Your task to perform on an android device: change notifications settings Image 0: 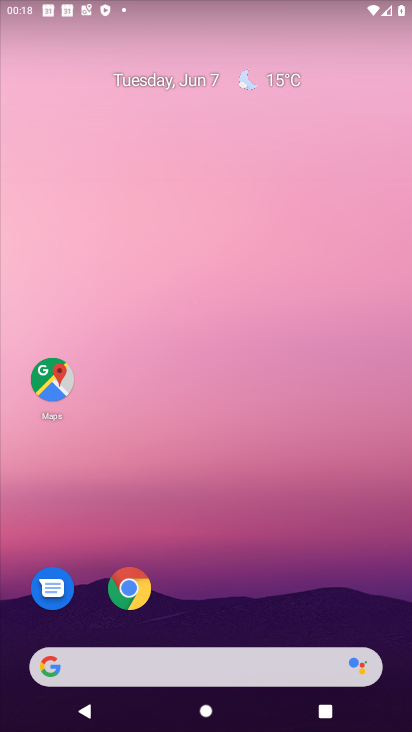
Step 0: drag from (252, 622) to (220, 215)
Your task to perform on an android device: change notifications settings Image 1: 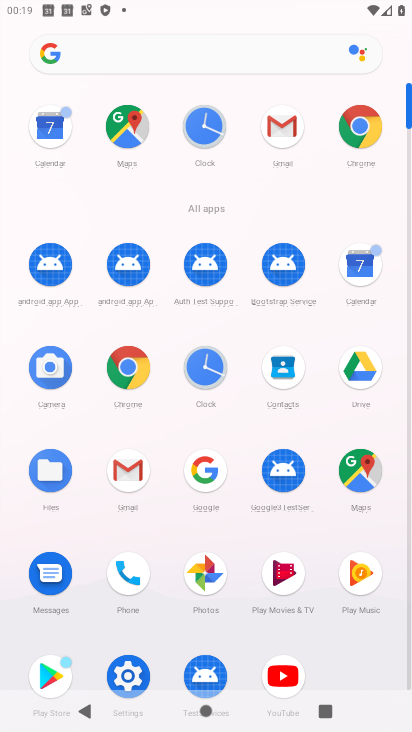
Step 1: click (120, 670)
Your task to perform on an android device: change notifications settings Image 2: 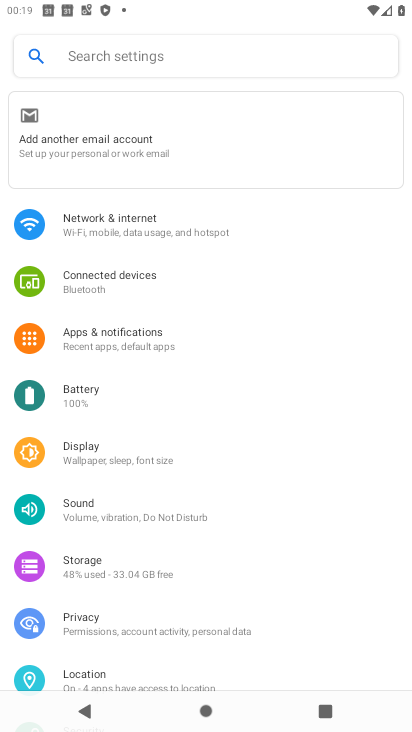
Step 2: click (165, 329)
Your task to perform on an android device: change notifications settings Image 3: 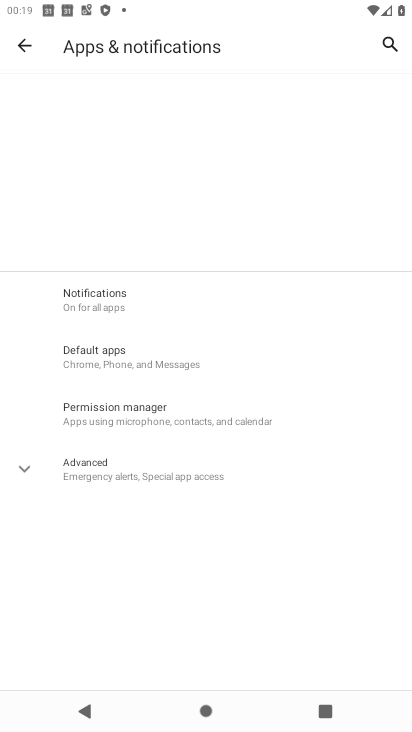
Step 3: click (130, 293)
Your task to perform on an android device: change notifications settings Image 4: 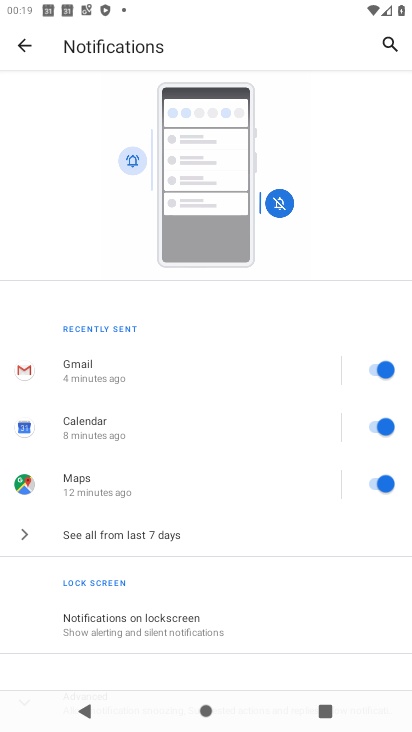
Step 4: drag from (231, 617) to (236, 475)
Your task to perform on an android device: change notifications settings Image 5: 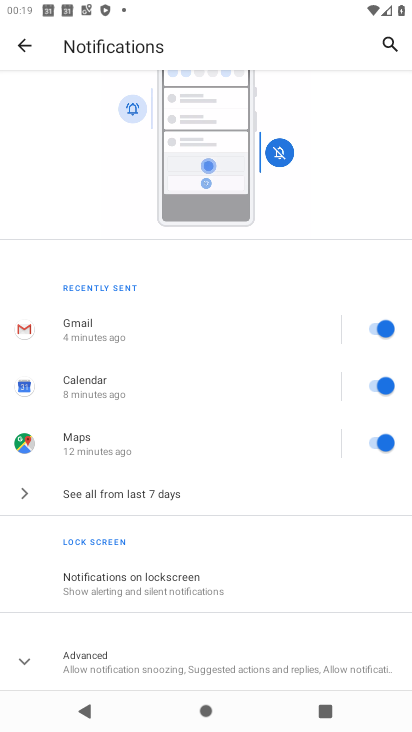
Step 5: click (136, 495)
Your task to perform on an android device: change notifications settings Image 6: 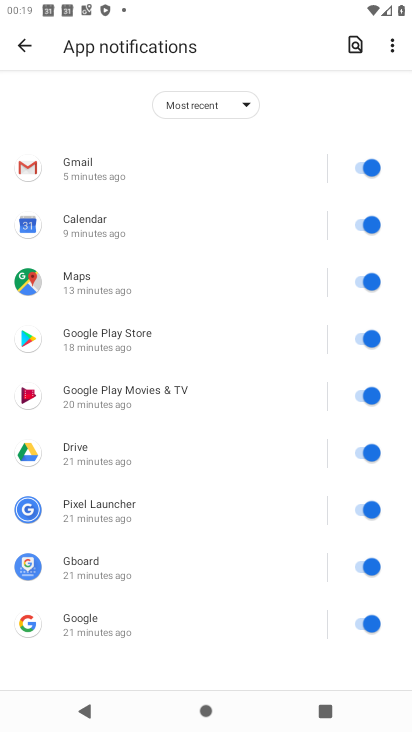
Step 6: click (355, 159)
Your task to perform on an android device: change notifications settings Image 7: 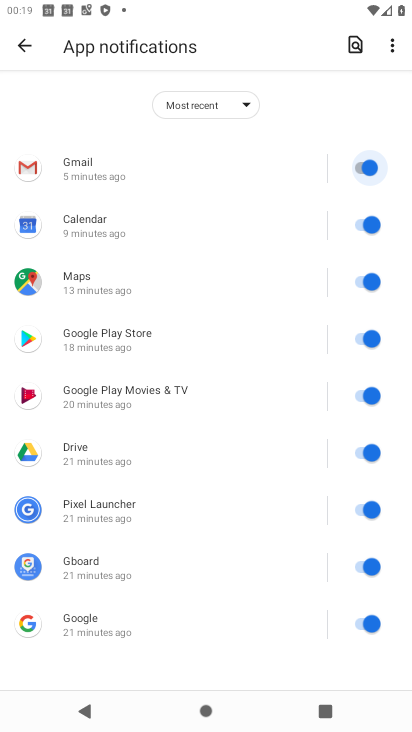
Step 7: click (376, 232)
Your task to perform on an android device: change notifications settings Image 8: 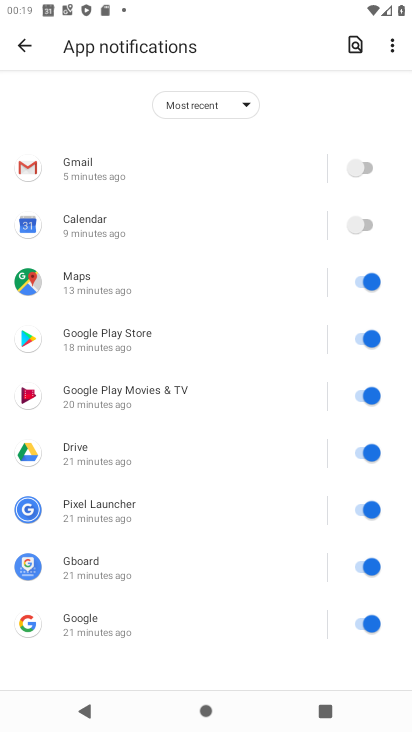
Step 8: click (368, 291)
Your task to perform on an android device: change notifications settings Image 9: 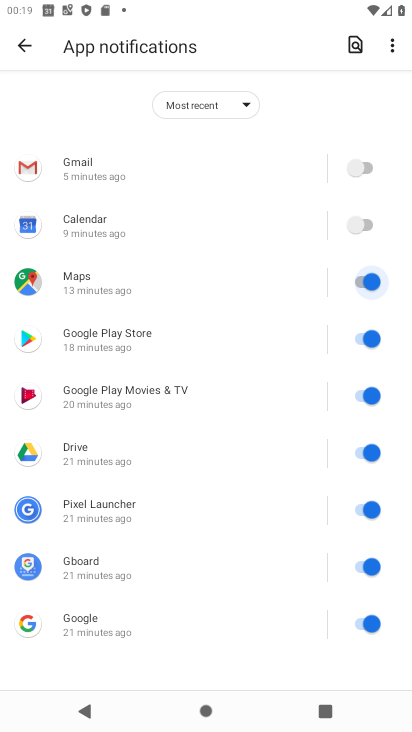
Step 9: click (368, 332)
Your task to perform on an android device: change notifications settings Image 10: 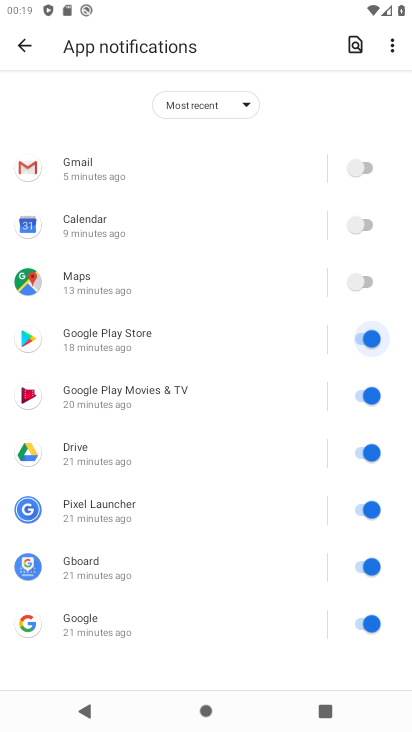
Step 10: click (372, 400)
Your task to perform on an android device: change notifications settings Image 11: 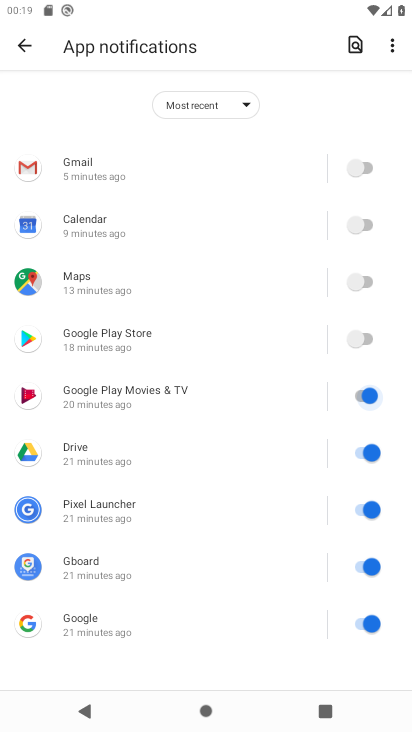
Step 11: click (372, 435)
Your task to perform on an android device: change notifications settings Image 12: 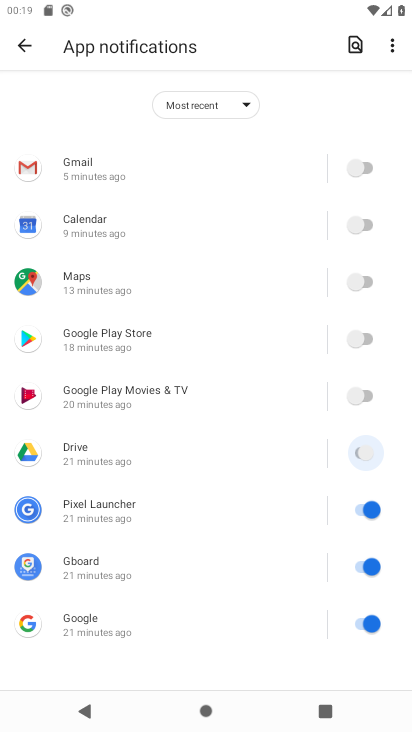
Step 12: click (366, 510)
Your task to perform on an android device: change notifications settings Image 13: 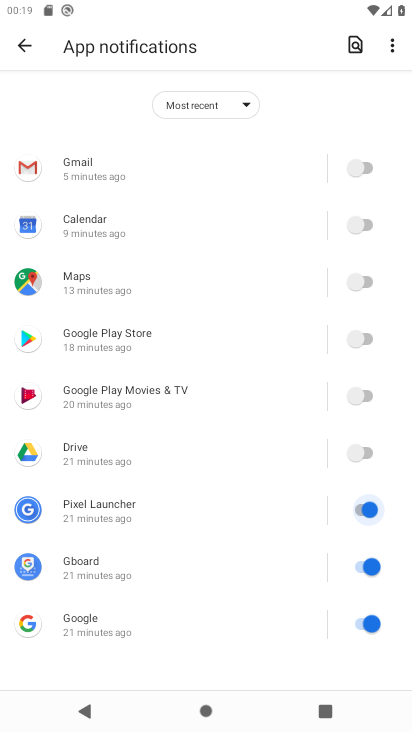
Step 13: click (370, 555)
Your task to perform on an android device: change notifications settings Image 14: 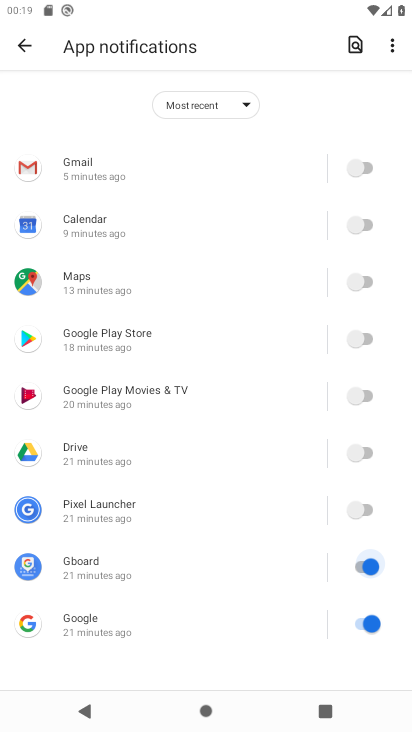
Step 14: click (385, 610)
Your task to perform on an android device: change notifications settings Image 15: 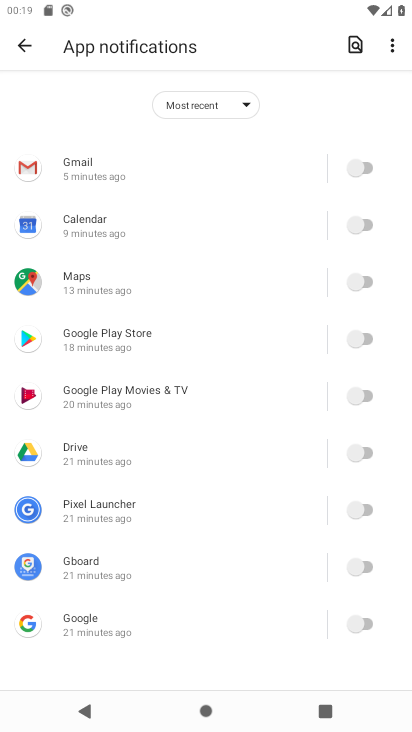
Step 15: click (377, 624)
Your task to perform on an android device: change notifications settings Image 16: 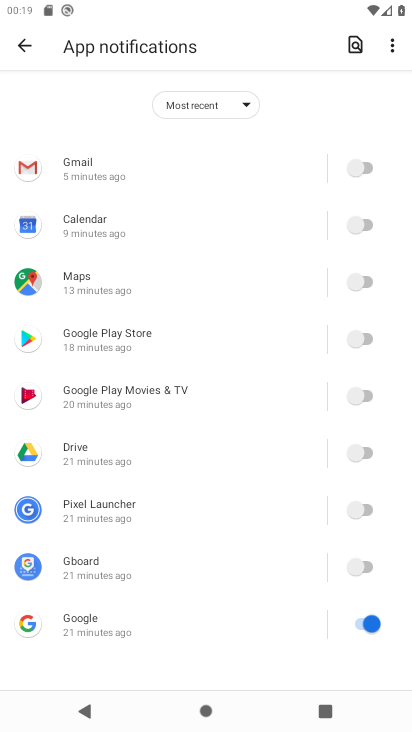
Step 16: click (373, 621)
Your task to perform on an android device: change notifications settings Image 17: 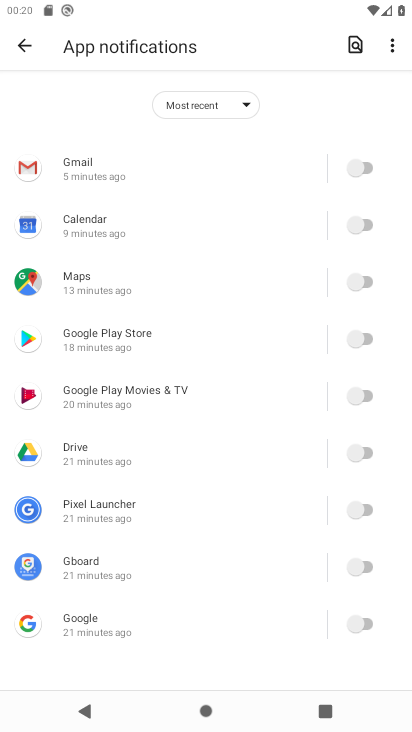
Step 17: task complete